Your task to perform on an android device: turn on showing notifications on the lock screen Image 0: 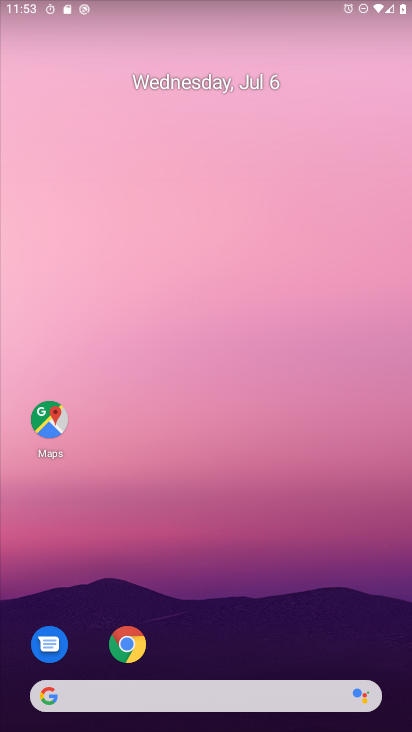
Step 0: drag from (204, 638) to (234, 110)
Your task to perform on an android device: turn on showing notifications on the lock screen Image 1: 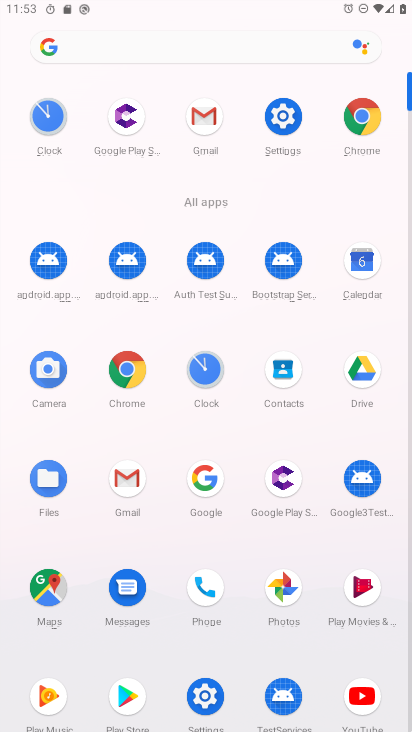
Step 1: click (291, 109)
Your task to perform on an android device: turn on showing notifications on the lock screen Image 2: 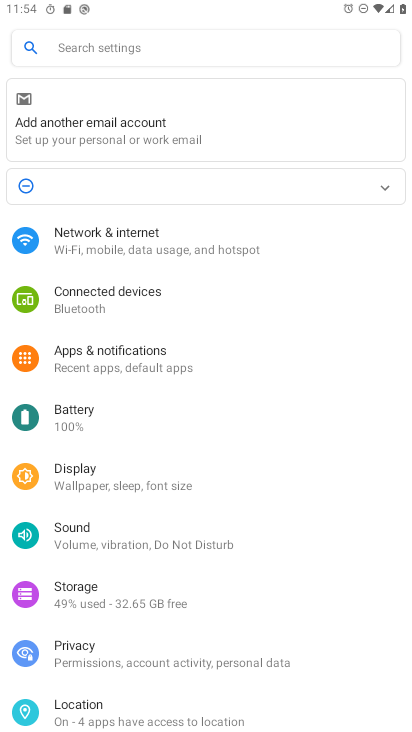
Step 2: drag from (150, 634) to (145, 501)
Your task to perform on an android device: turn on showing notifications on the lock screen Image 3: 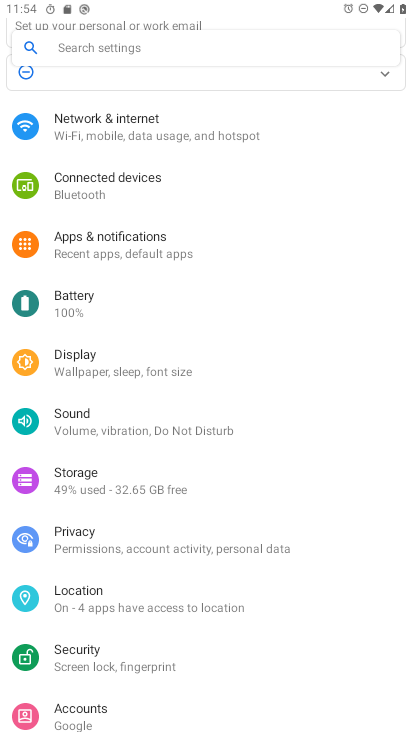
Step 3: click (114, 250)
Your task to perform on an android device: turn on showing notifications on the lock screen Image 4: 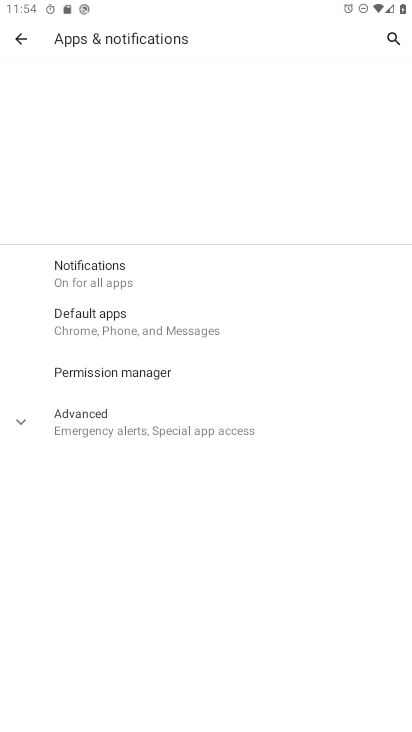
Step 4: click (143, 274)
Your task to perform on an android device: turn on showing notifications on the lock screen Image 5: 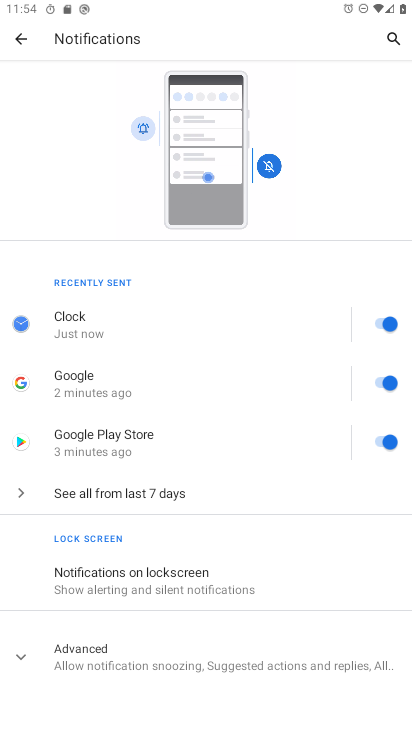
Step 5: click (123, 591)
Your task to perform on an android device: turn on showing notifications on the lock screen Image 6: 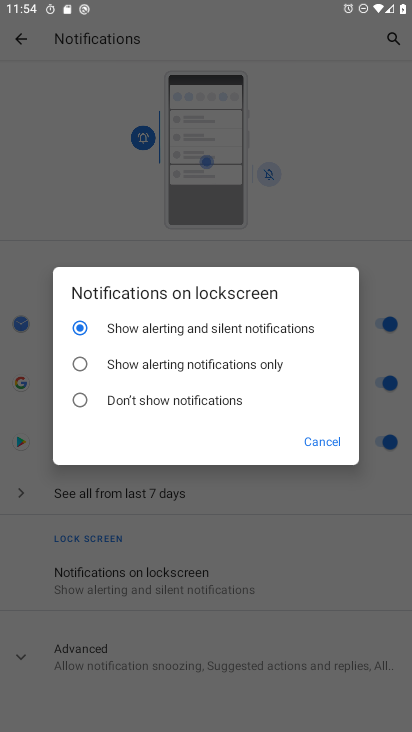
Step 6: task complete